Your task to perform on an android device: turn off airplane mode Image 0: 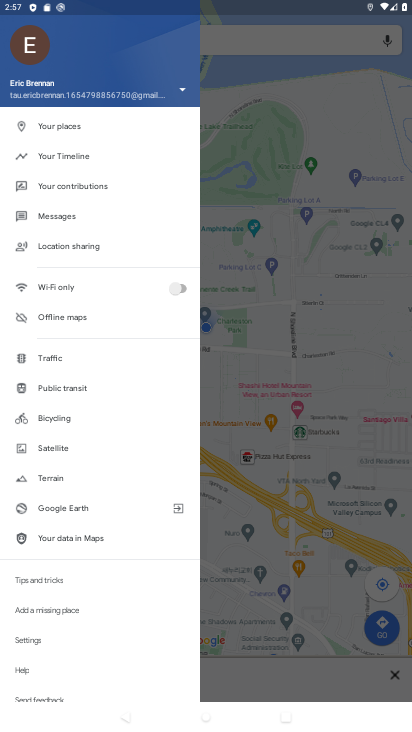
Step 0: press home button
Your task to perform on an android device: turn off airplane mode Image 1: 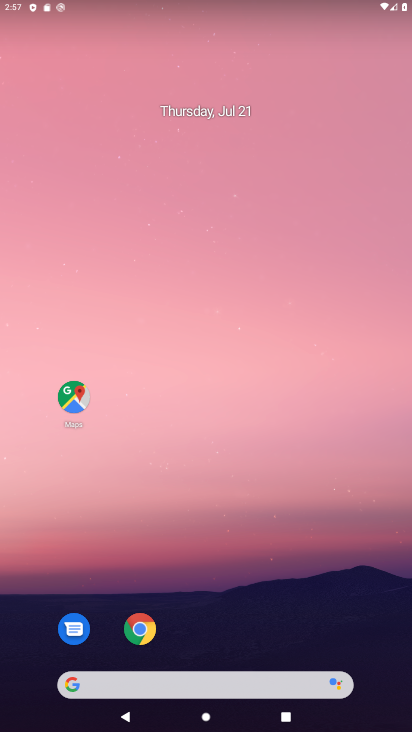
Step 1: drag from (188, 662) to (229, 47)
Your task to perform on an android device: turn off airplane mode Image 2: 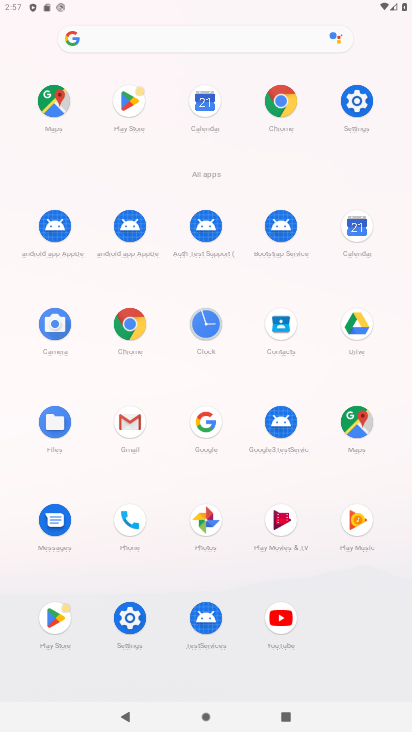
Step 2: click (127, 631)
Your task to perform on an android device: turn off airplane mode Image 3: 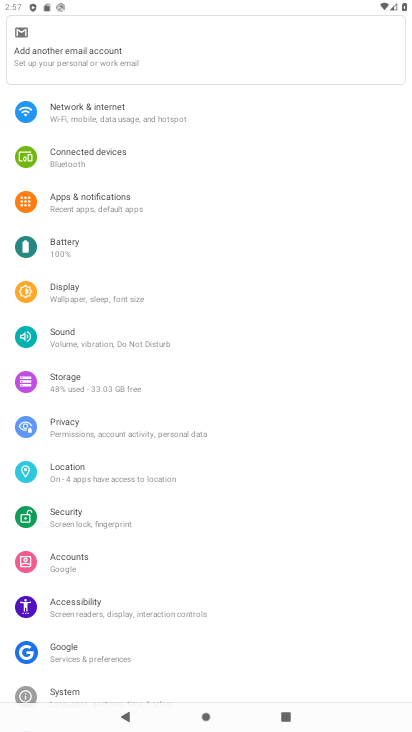
Step 3: click (142, 119)
Your task to perform on an android device: turn off airplane mode Image 4: 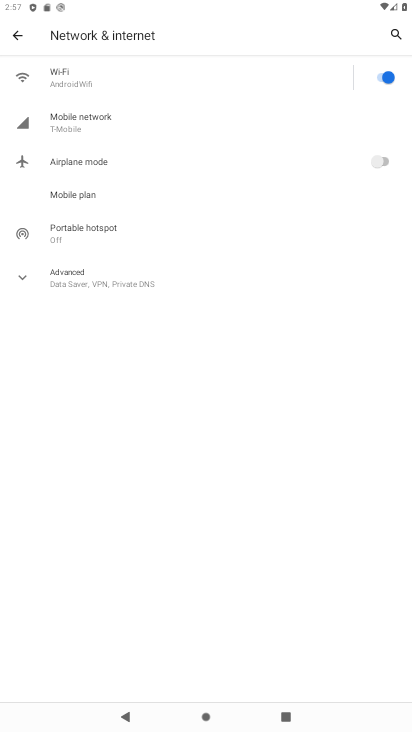
Step 4: task complete